Your task to perform on an android device: Open Chrome and go to the settings page Image 0: 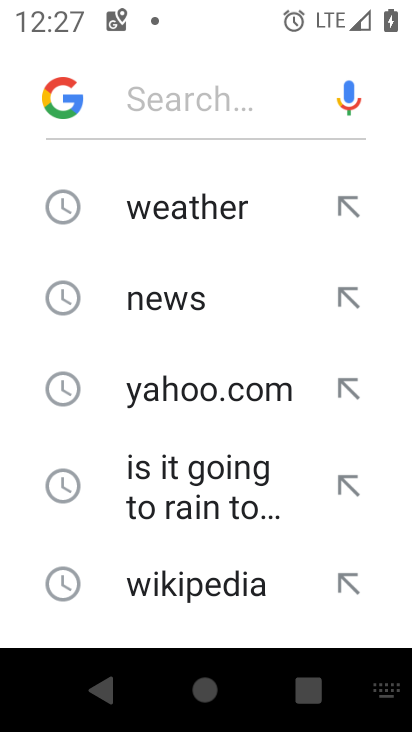
Step 0: press home button
Your task to perform on an android device: Open Chrome and go to the settings page Image 1: 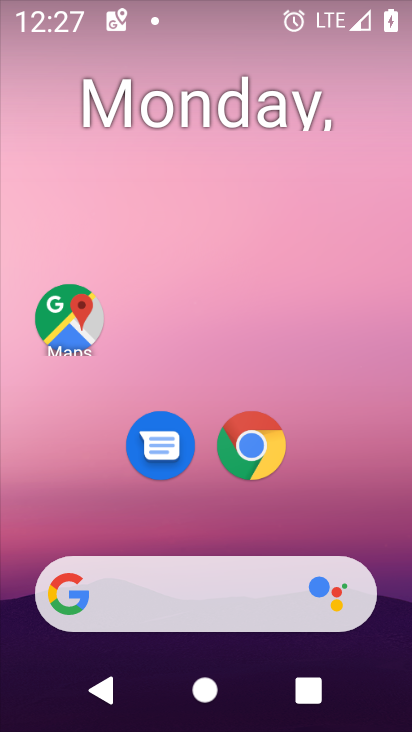
Step 1: click (250, 454)
Your task to perform on an android device: Open Chrome and go to the settings page Image 2: 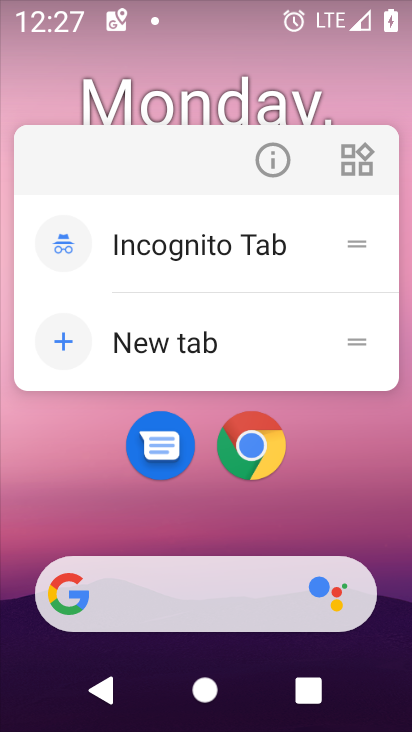
Step 2: click (276, 173)
Your task to perform on an android device: Open Chrome and go to the settings page Image 3: 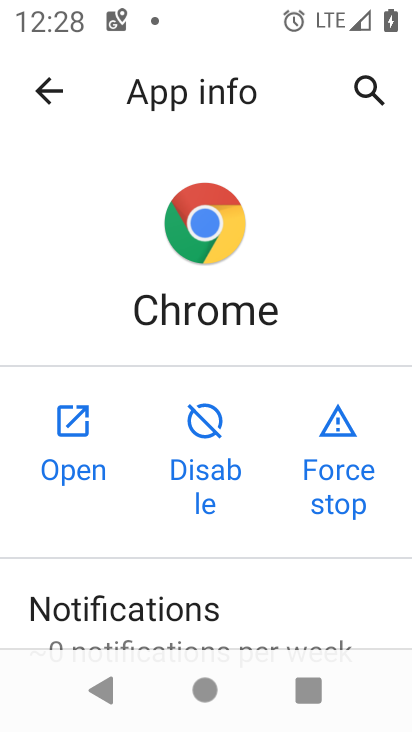
Step 3: click (82, 447)
Your task to perform on an android device: Open Chrome and go to the settings page Image 4: 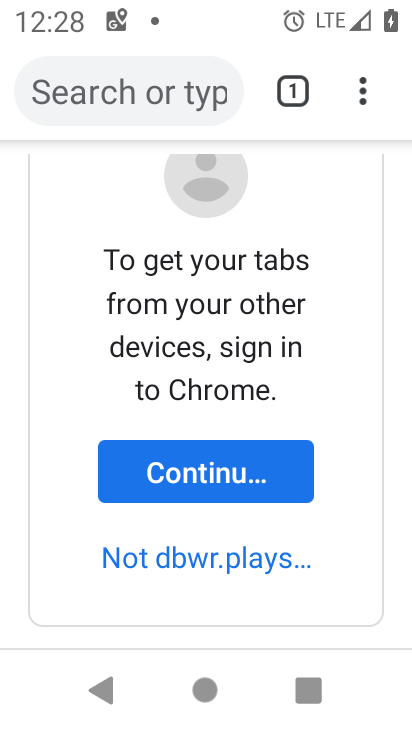
Step 4: task complete